Your task to perform on an android device: Do I have any events this weekend? Image 0: 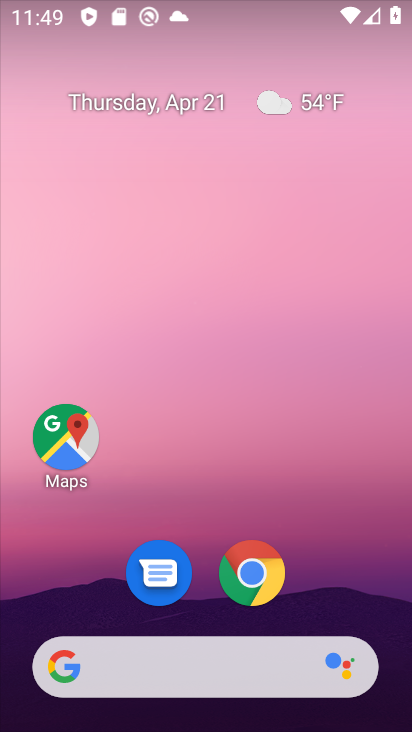
Step 0: drag from (168, 595) to (217, 89)
Your task to perform on an android device: Do I have any events this weekend? Image 1: 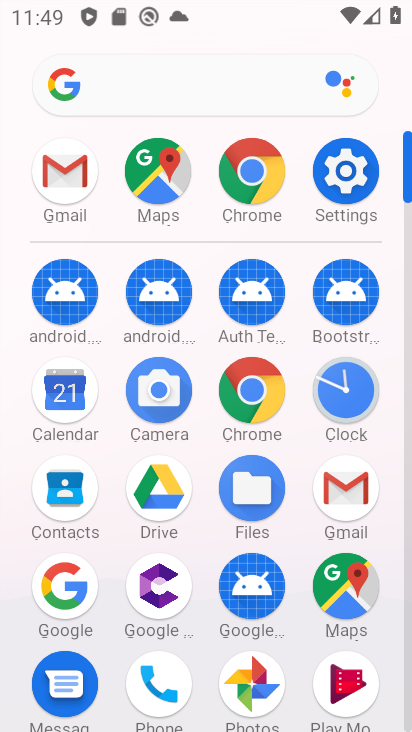
Step 1: click (72, 404)
Your task to perform on an android device: Do I have any events this weekend? Image 2: 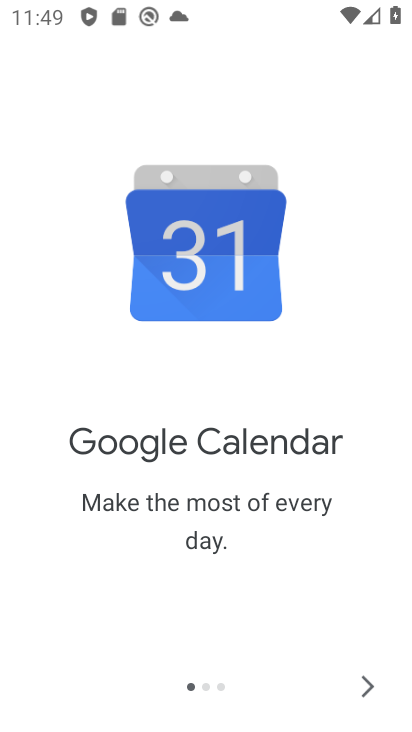
Step 2: click (368, 683)
Your task to perform on an android device: Do I have any events this weekend? Image 3: 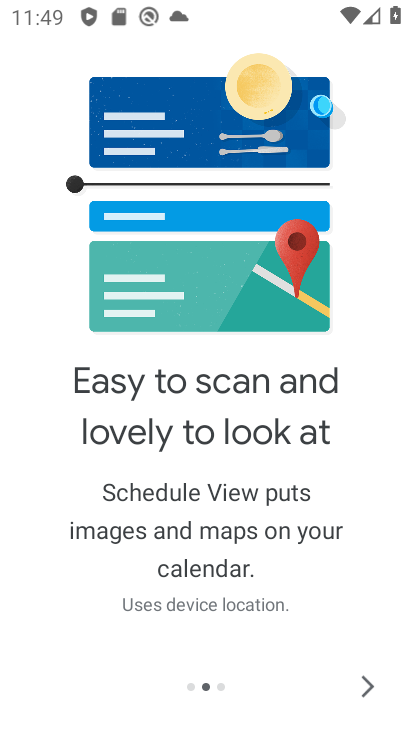
Step 3: click (368, 683)
Your task to perform on an android device: Do I have any events this weekend? Image 4: 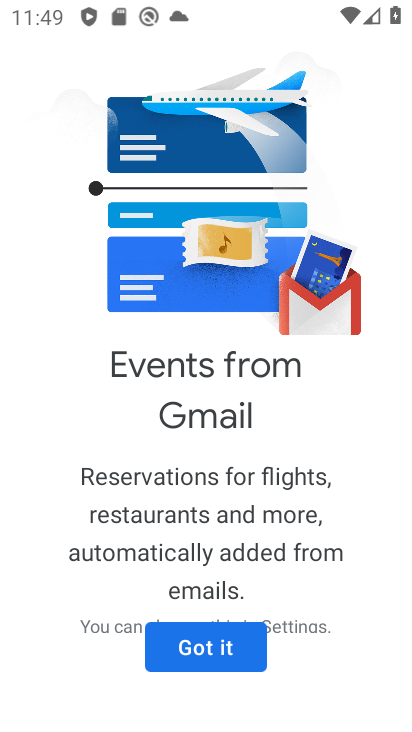
Step 4: click (236, 661)
Your task to perform on an android device: Do I have any events this weekend? Image 5: 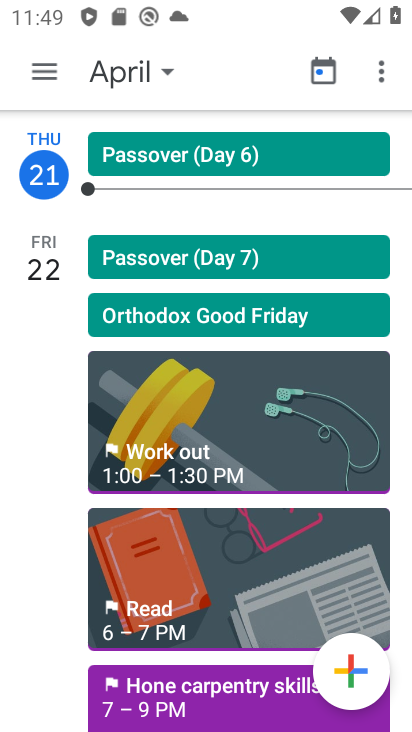
Step 5: click (101, 70)
Your task to perform on an android device: Do I have any events this weekend? Image 6: 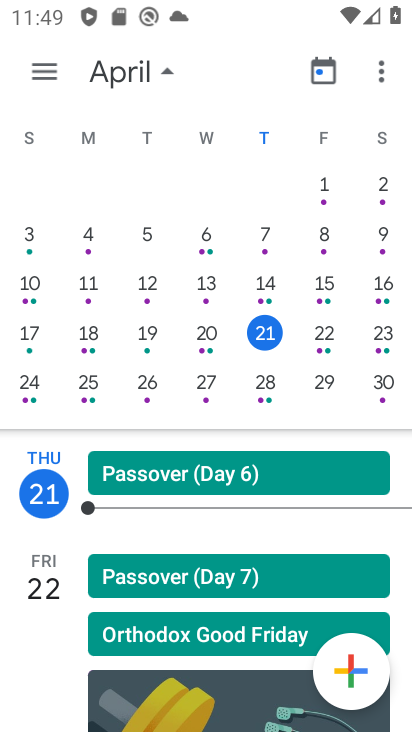
Step 6: click (390, 337)
Your task to perform on an android device: Do I have any events this weekend? Image 7: 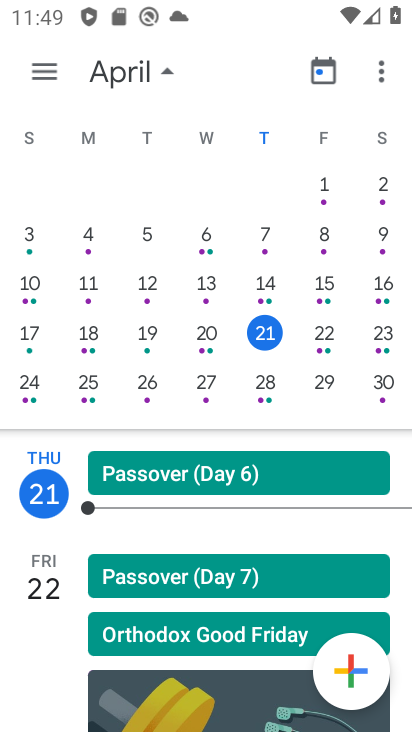
Step 7: click (380, 338)
Your task to perform on an android device: Do I have any events this weekend? Image 8: 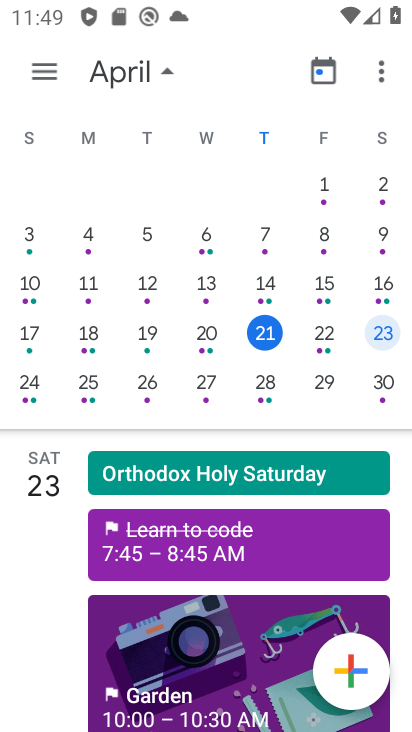
Step 8: click (34, 75)
Your task to perform on an android device: Do I have any events this weekend? Image 9: 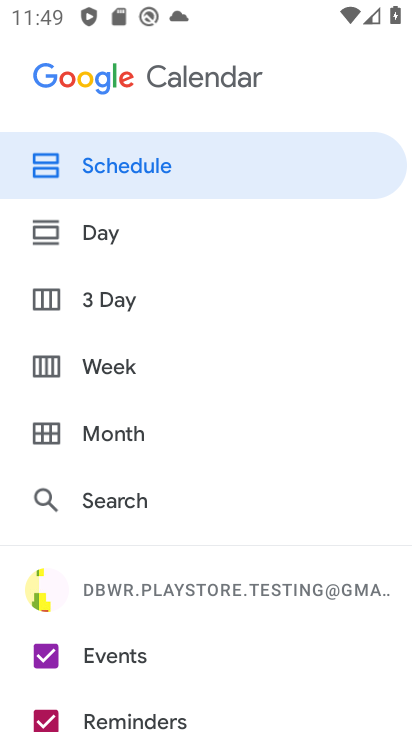
Step 9: click (123, 168)
Your task to perform on an android device: Do I have any events this weekend? Image 10: 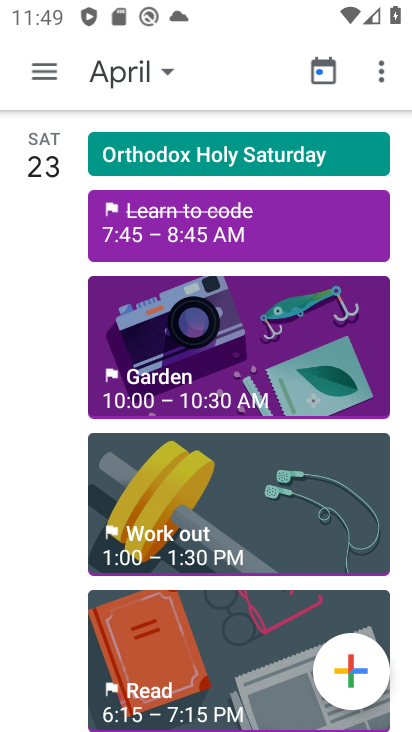
Step 10: task complete